Your task to perform on an android device: turn on data saver in the chrome app Image 0: 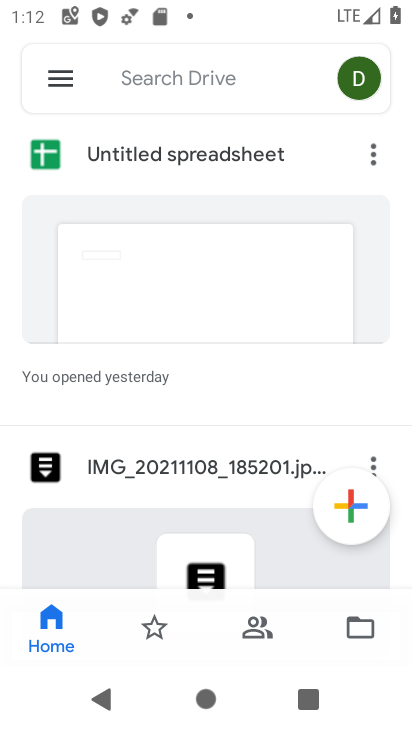
Step 0: press home button
Your task to perform on an android device: turn on data saver in the chrome app Image 1: 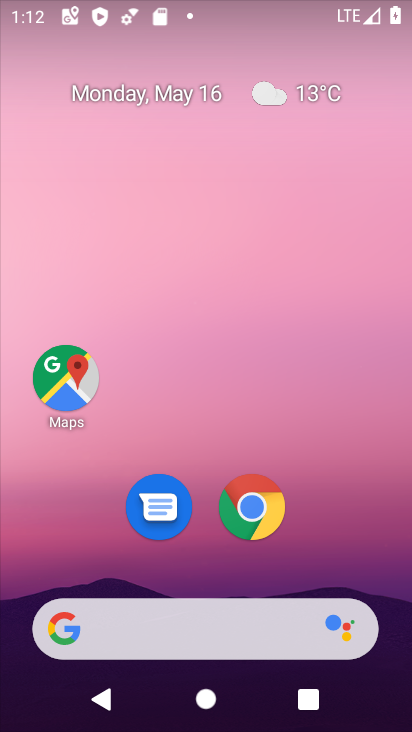
Step 1: click (255, 494)
Your task to perform on an android device: turn on data saver in the chrome app Image 2: 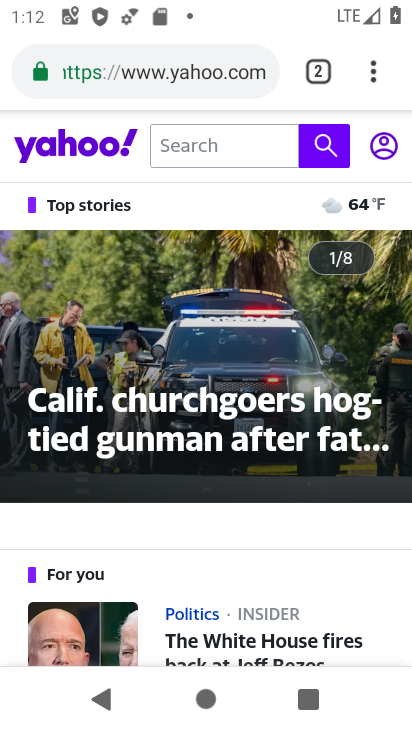
Step 2: click (384, 72)
Your task to perform on an android device: turn on data saver in the chrome app Image 3: 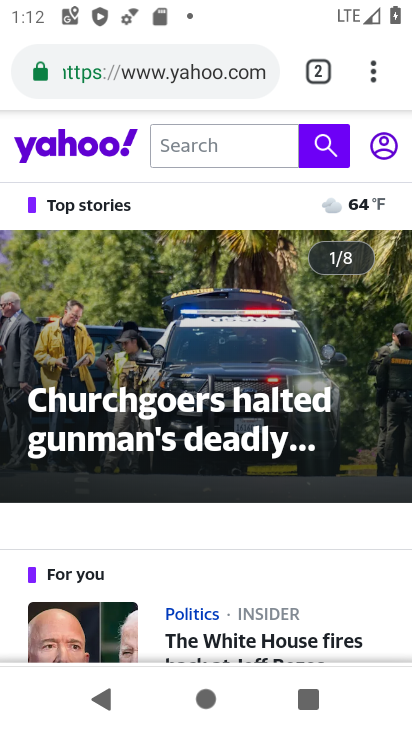
Step 3: click (372, 54)
Your task to perform on an android device: turn on data saver in the chrome app Image 4: 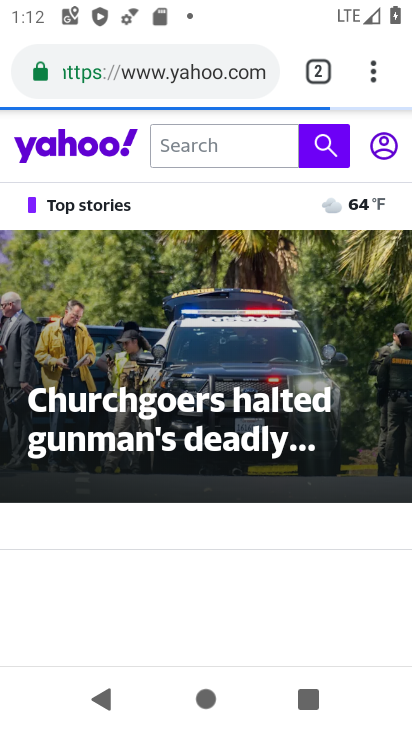
Step 4: click (370, 74)
Your task to perform on an android device: turn on data saver in the chrome app Image 5: 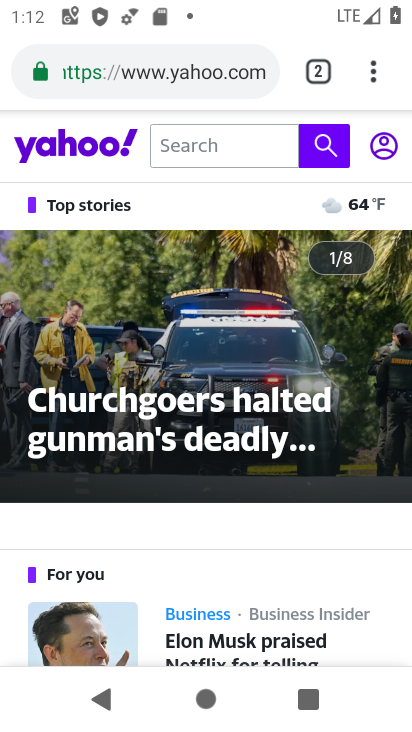
Step 5: click (371, 73)
Your task to perform on an android device: turn on data saver in the chrome app Image 6: 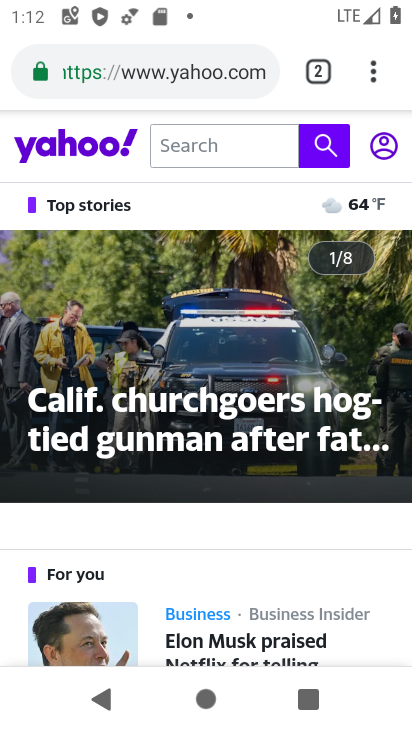
Step 6: click (372, 64)
Your task to perform on an android device: turn on data saver in the chrome app Image 7: 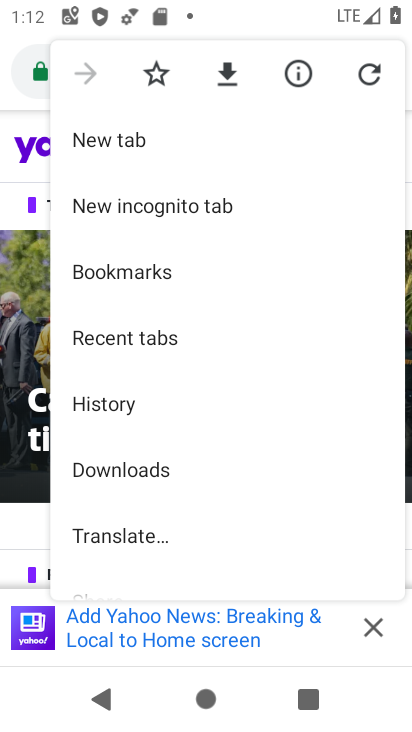
Step 7: drag from (190, 489) to (173, 72)
Your task to perform on an android device: turn on data saver in the chrome app Image 8: 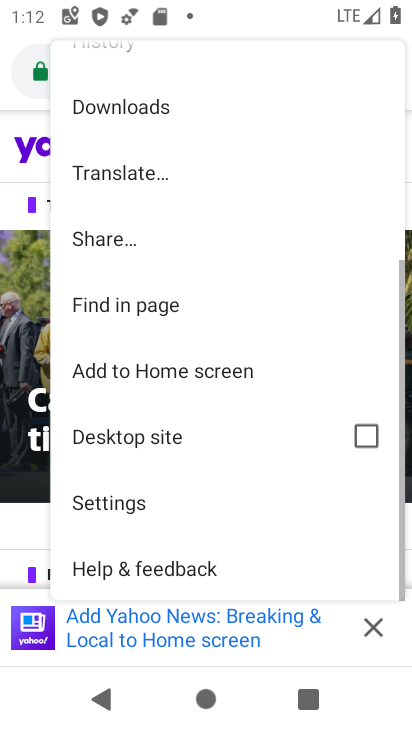
Step 8: click (154, 491)
Your task to perform on an android device: turn on data saver in the chrome app Image 9: 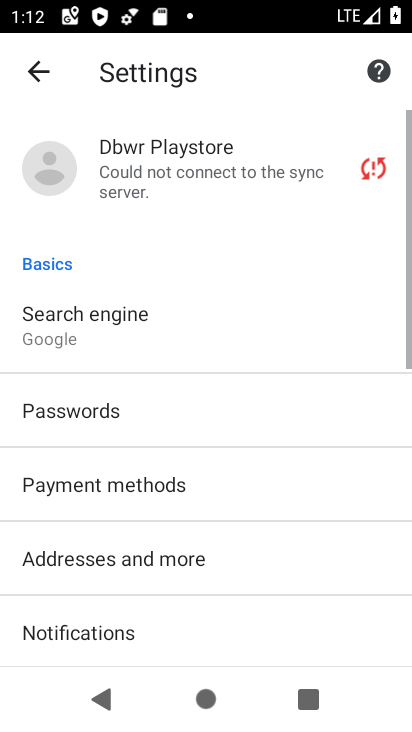
Step 9: drag from (184, 526) to (187, 117)
Your task to perform on an android device: turn on data saver in the chrome app Image 10: 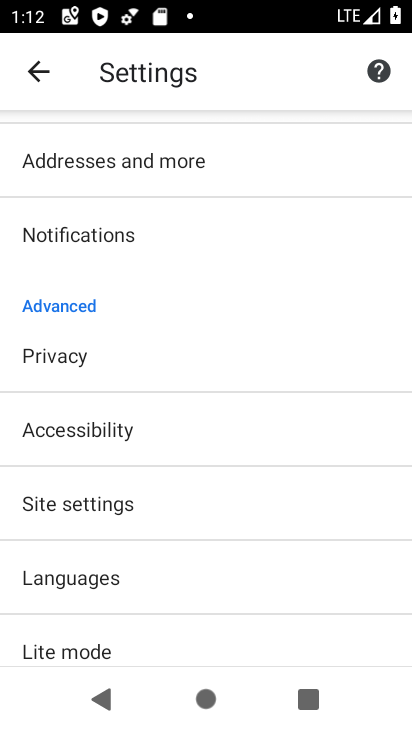
Step 10: drag from (183, 515) to (203, 384)
Your task to perform on an android device: turn on data saver in the chrome app Image 11: 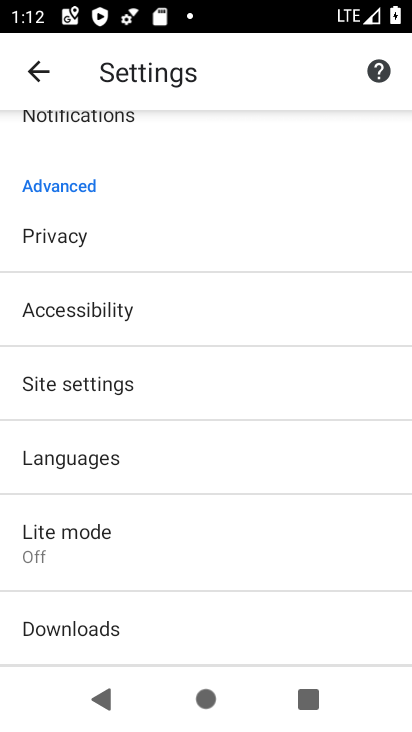
Step 11: click (137, 540)
Your task to perform on an android device: turn on data saver in the chrome app Image 12: 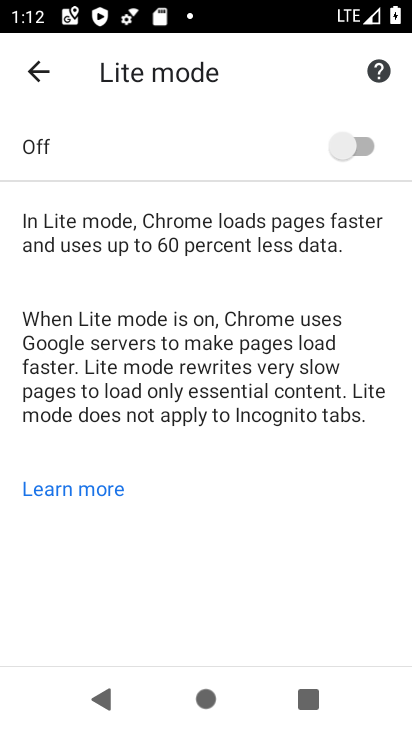
Step 12: click (360, 144)
Your task to perform on an android device: turn on data saver in the chrome app Image 13: 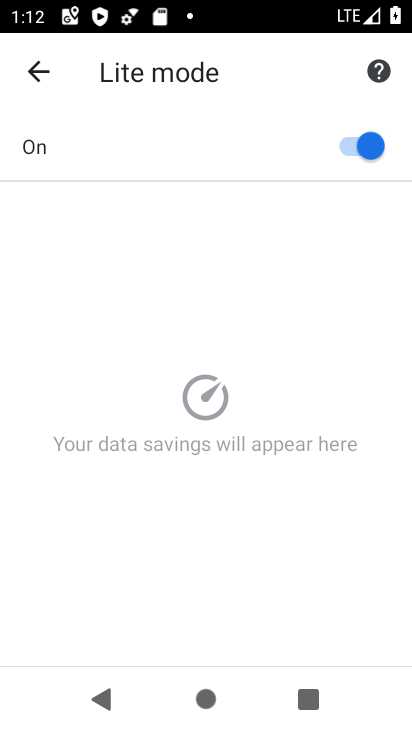
Step 13: task complete